Your task to perform on an android device: Open network settings Image 0: 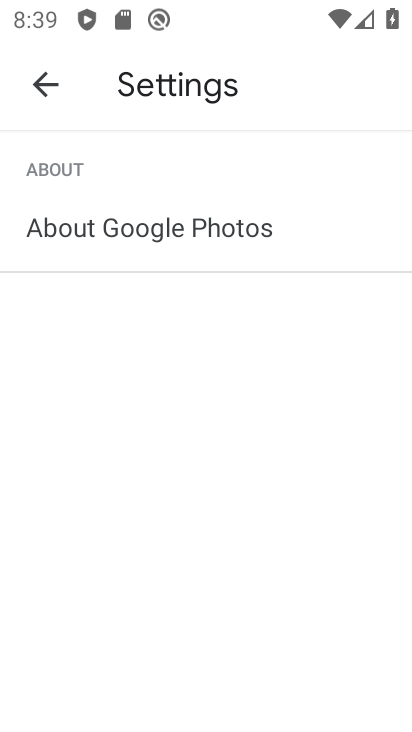
Step 0: click (34, 78)
Your task to perform on an android device: Open network settings Image 1: 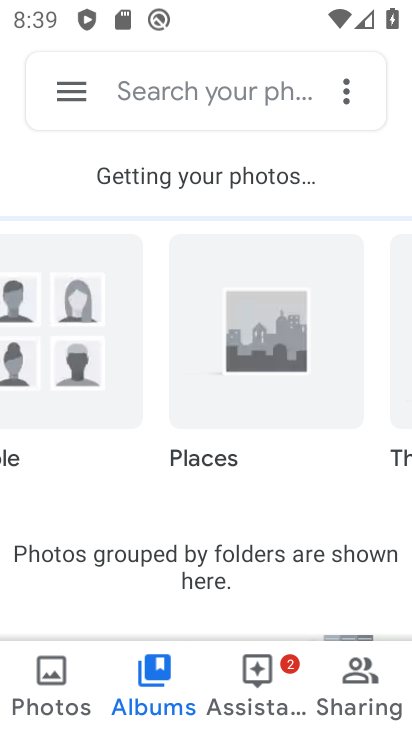
Step 1: press home button
Your task to perform on an android device: Open network settings Image 2: 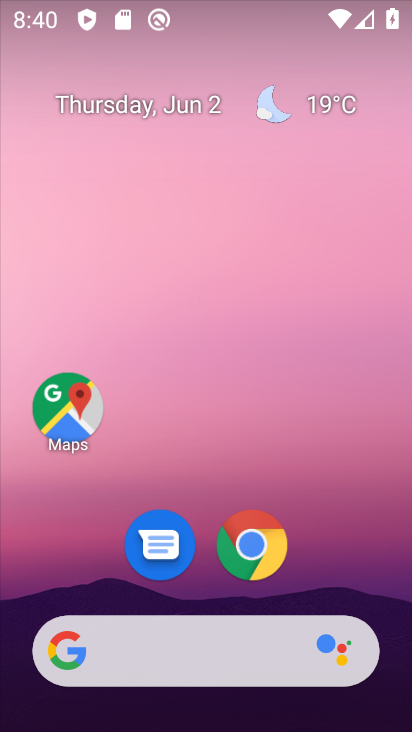
Step 2: drag from (398, 693) to (318, 39)
Your task to perform on an android device: Open network settings Image 3: 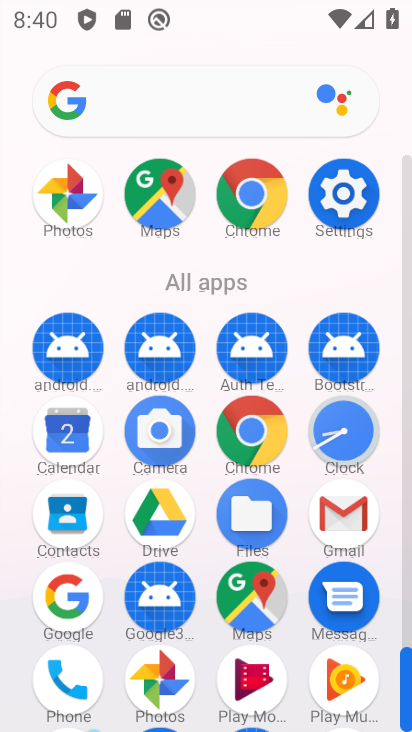
Step 3: click (351, 187)
Your task to perform on an android device: Open network settings Image 4: 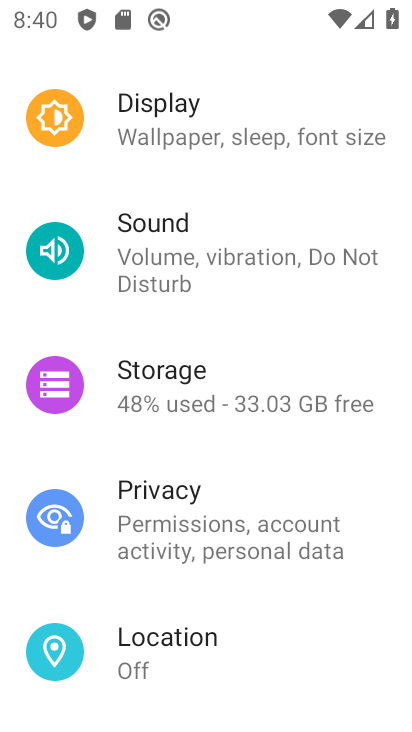
Step 4: drag from (333, 158) to (306, 468)
Your task to perform on an android device: Open network settings Image 5: 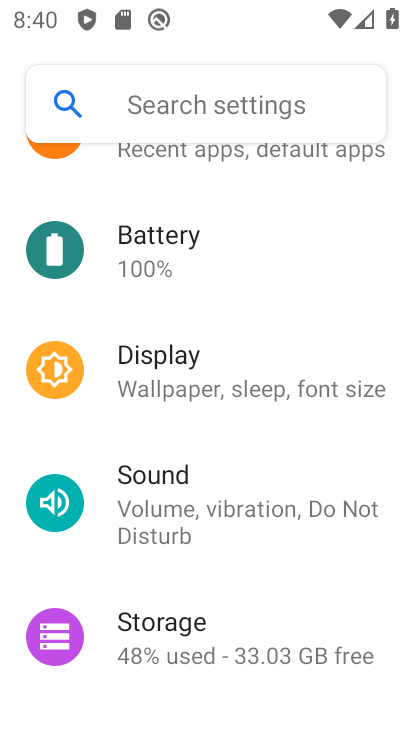
Step 5: drag from (280, 206) to (275, 512)
Your task to perform on an android device: Open network settings Image 6: 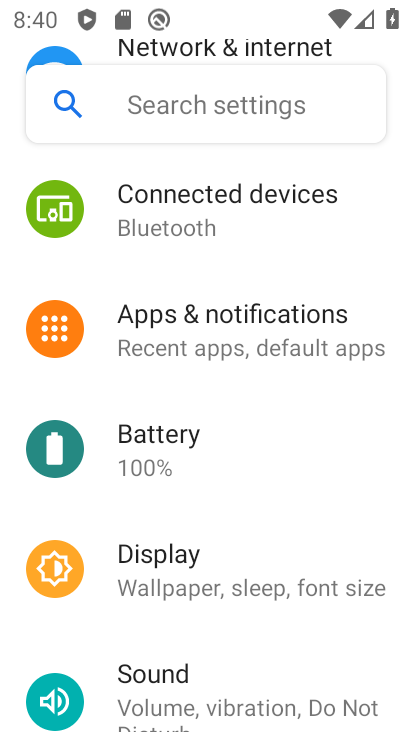
Step 6: drag from (266, 270) to (260, 560)
Your task to perform on an android device: Open network settings Image 7: 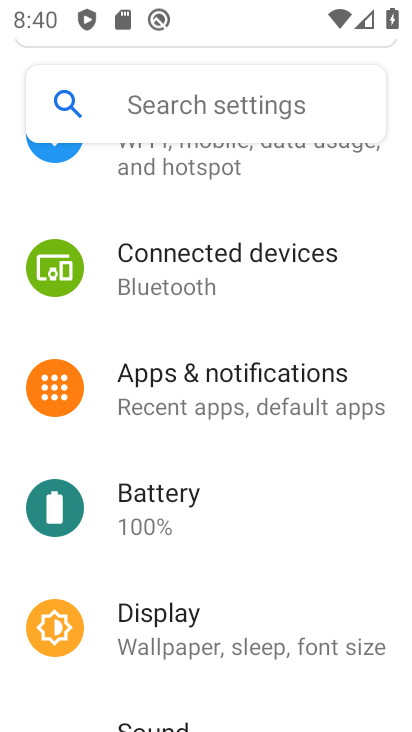
Step 7: drag from (249, 211) to (252, 573)
Your task to perform on an android device: Open network settings Image 8: 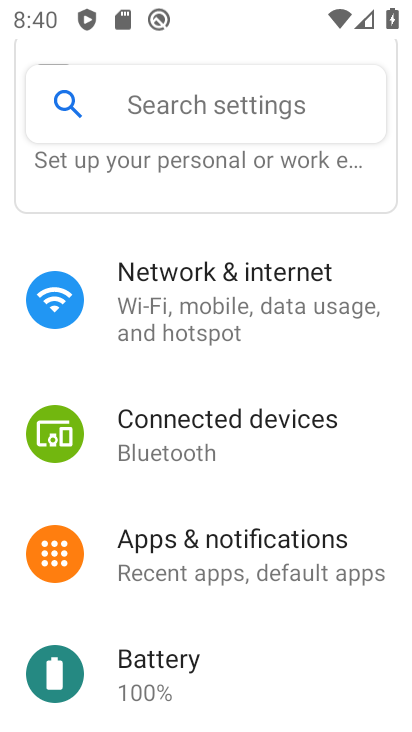
Step 8: click (203, 265)
Your task to perform on an android device: Open network settings Image 9: 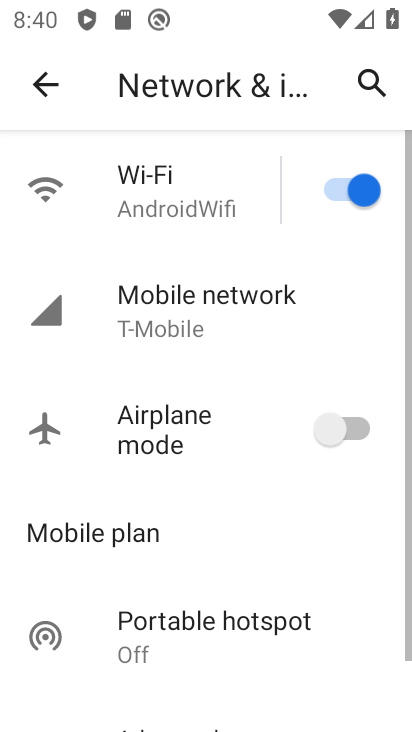
Step 9: click (170, 305)
Your task to perform on an android device: Open network settings Image 10: 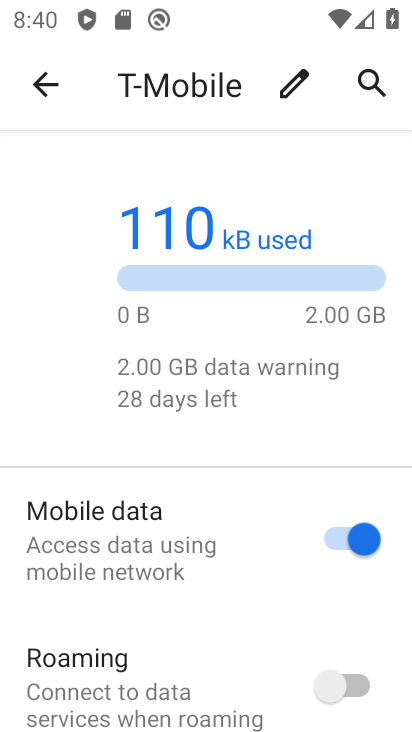
Step 10: drag from (267, 684) to (260, 231)
Your task to perform on an android device: Open network settings Image 11: 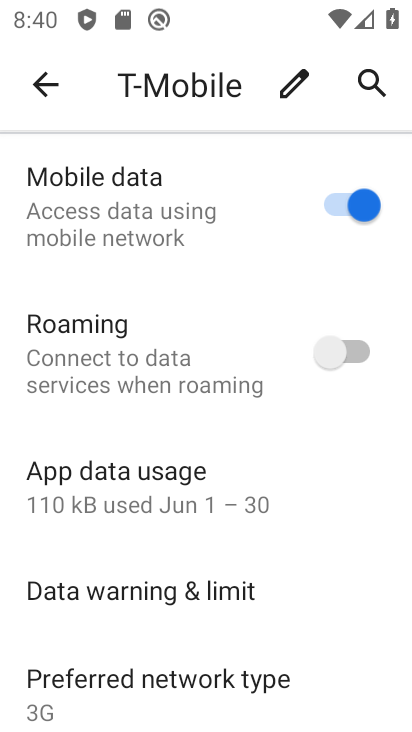
Step 11: drag from (346, 661) to (288, 180)
Your task to perform on an android device: Open network settings Image 12: 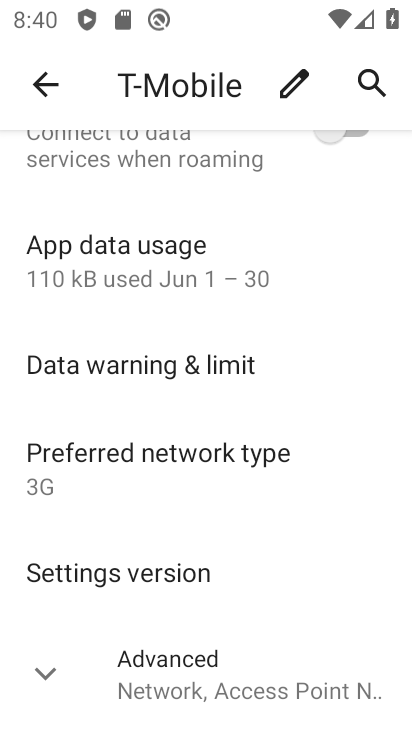
Step 12: click (23, 671)
Your task to perform on an android device: Open network settings Image 13: 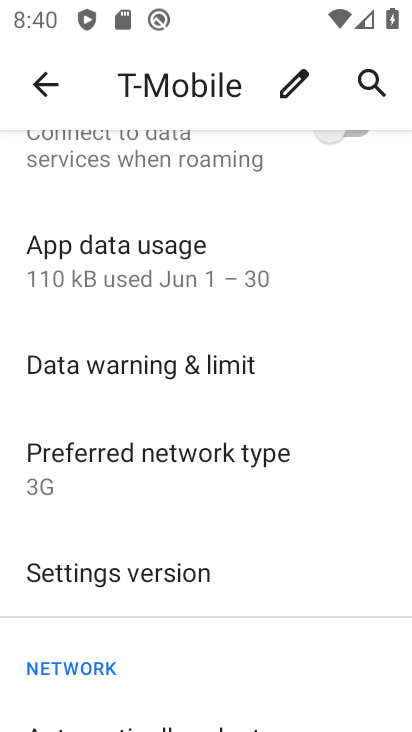
Step 13: task complete